Your task to perform on an android device: Go to Wikipedia Image 0: 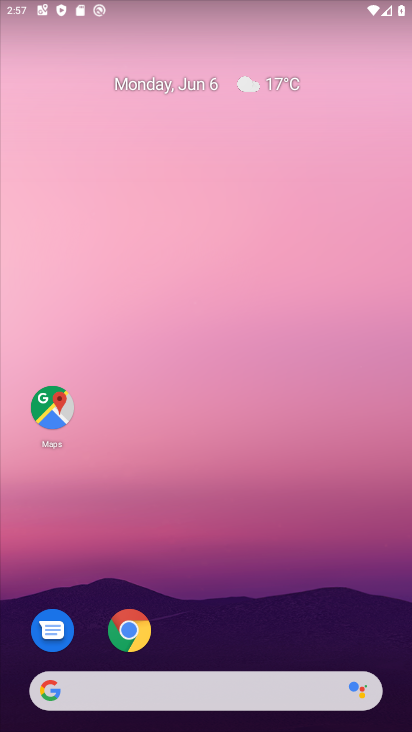
Step 0: click (125, 632)
Your task to perform on an android device: Go to Wikipedia Image 1: 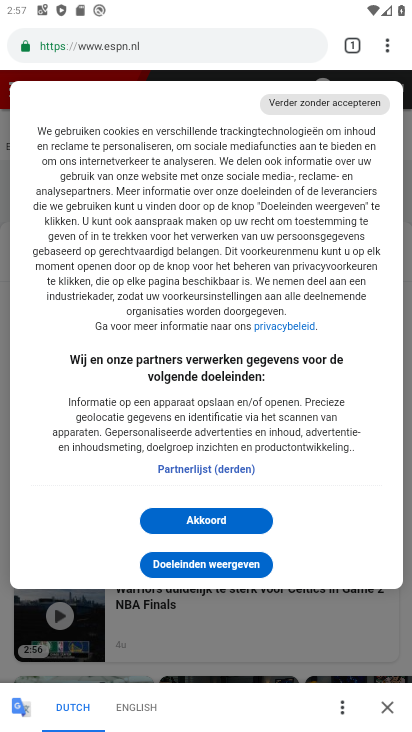
Step 1: click (366, 31)
Your task to perform on an android device: Go to Wikipedia Image 2: 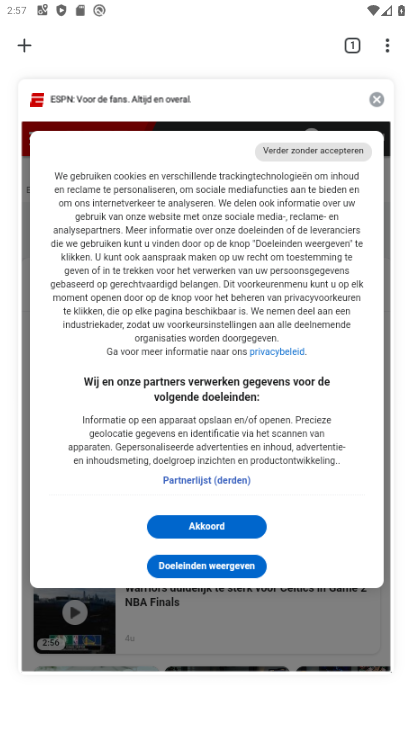
Step 2: click (18, 41)
Your task to perform on an android device: Go to Wikipedia Image 3: 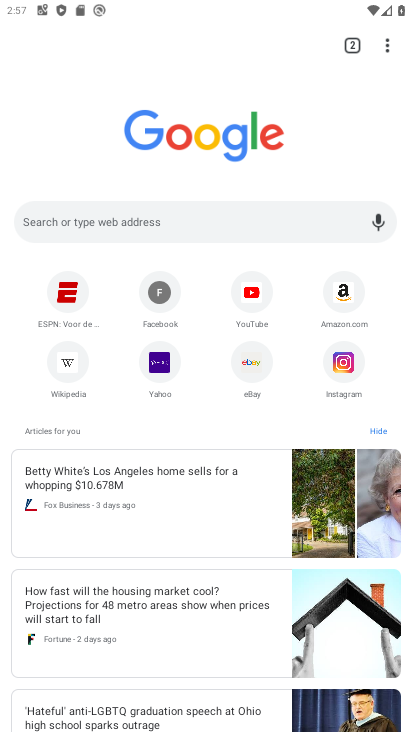
Step 3: click (68, 360)
Your task to perform on an android device: Go to Wikipedia Image 4: 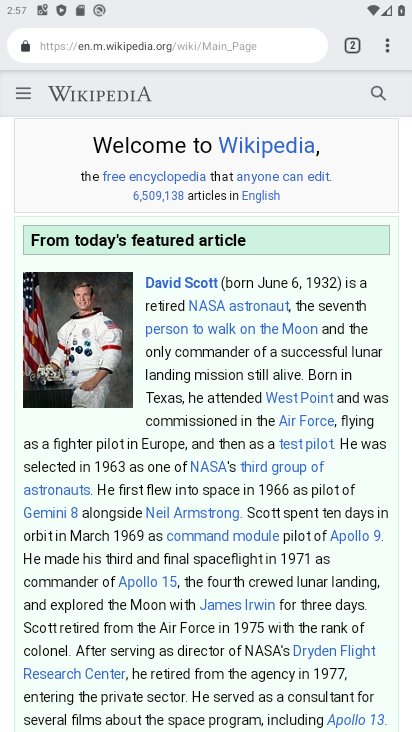
Step 4: task complete